Your task to perform on an android device: turn on the 24-hour format for clock Image 0: 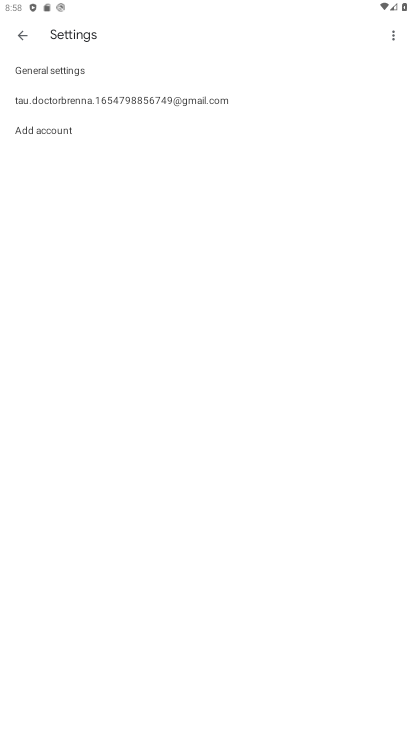
Step 0: press home button
Your task to perform on an android device: turn on the 24-hour format for clock Image 1: 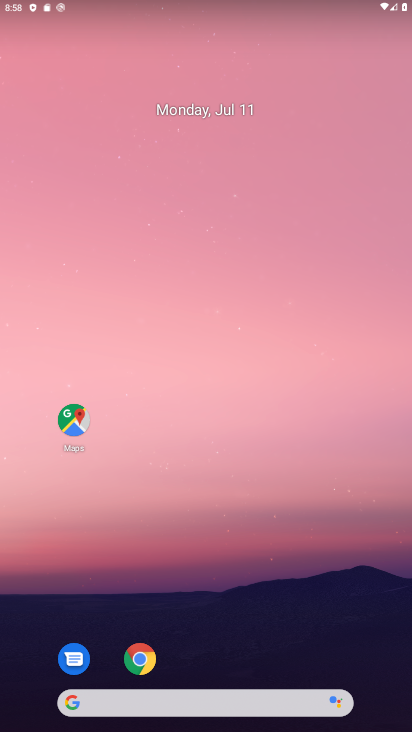
Step 1: drag from (335, 603) to (329, 92)
Your task to perform on an android device: turn on the 24-hour format for clock Image 2: 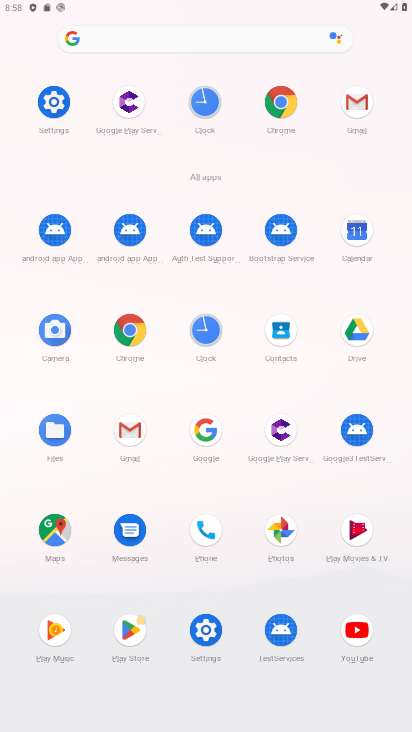
Step 2: click (207, 333)
Your task to perform on an android device: turn on the 24-hour format for clock Image 3: 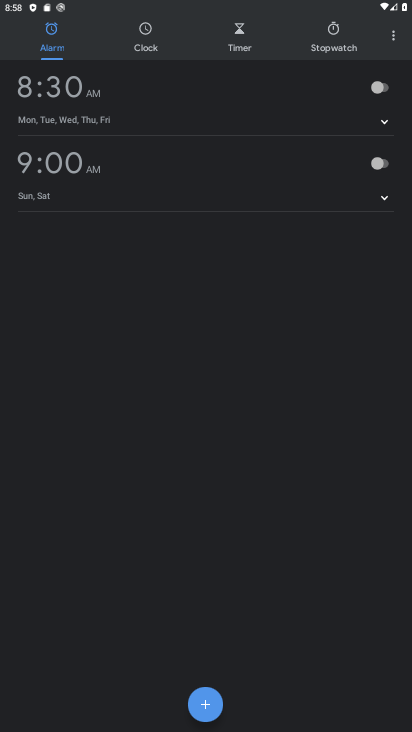
Step 3: click (393, 41)
Your task to perform on an android device: turn on the 24-hour format for clock Image 4: 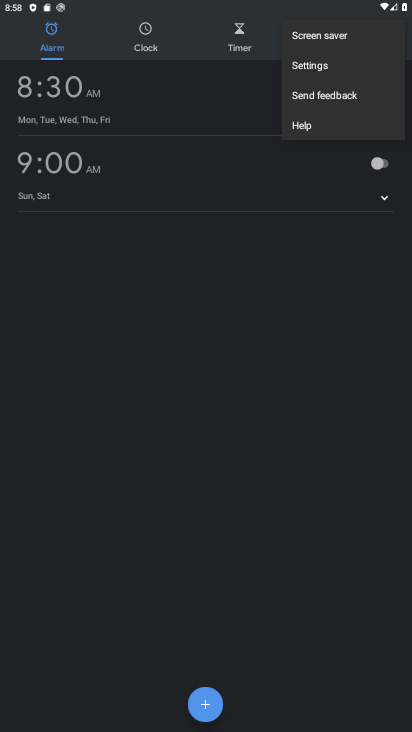
Step 4: click (321, 71)
Your task to perform on an android device: turn on the 24-hour format for clock Image 5: 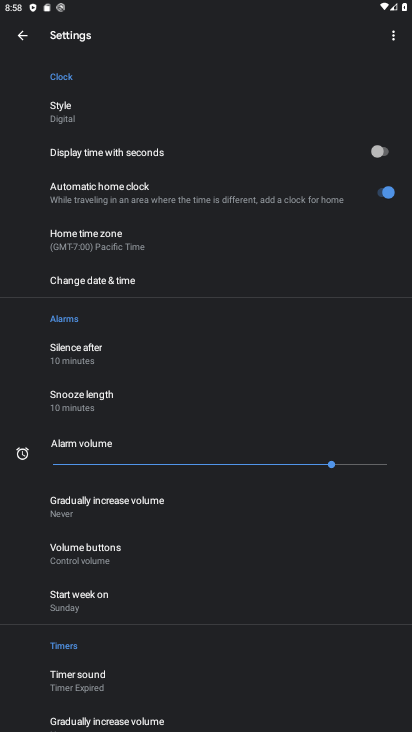
Step 5: click (187, 288)
Your task to perform on an android device: turn on the 24-hour format for clock Image 6: 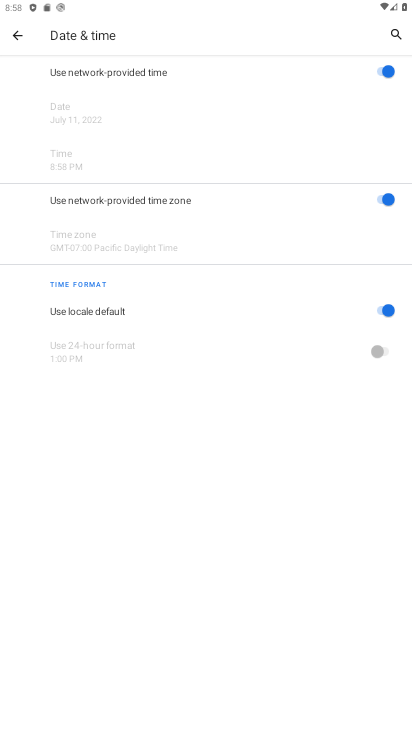
Step 6: click (390, 311)
Your task to perform on an android device: turn on the 24-hour format for clock Image 7: 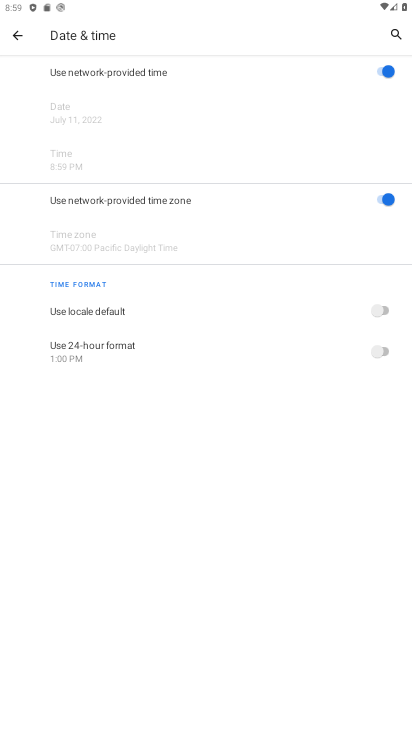
Step 7: task complete